Your task to perform on an android device: Open privacy settings Image 0: 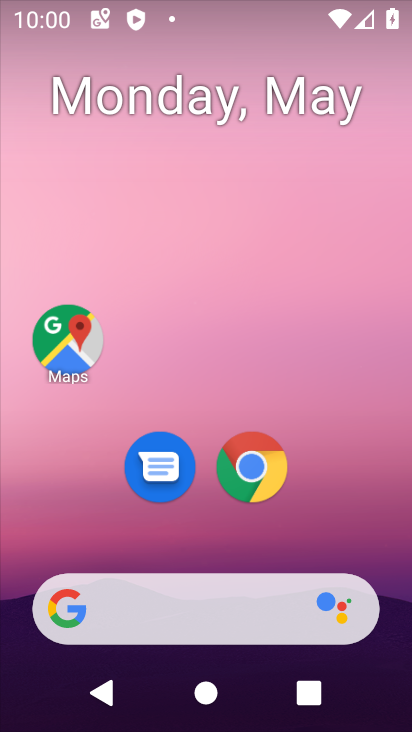
Step 0: drag from (396, 603) to (296, 7)
Your task to perform on an android device: Open privacy settings Image 1: 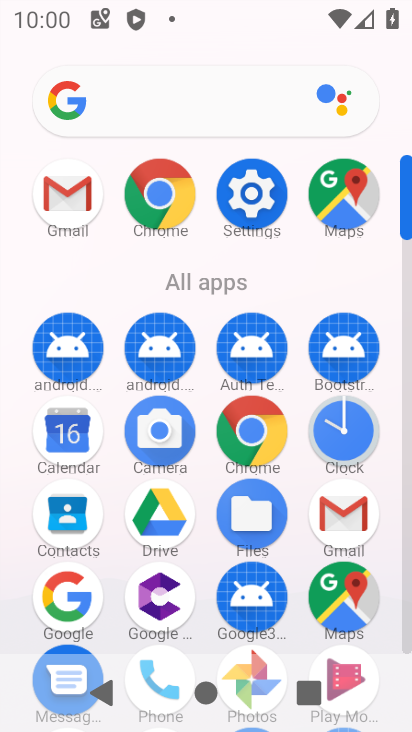
Step 1: click (405, 617)
Your task to perform on an android device: Open privacy settings Image 2: 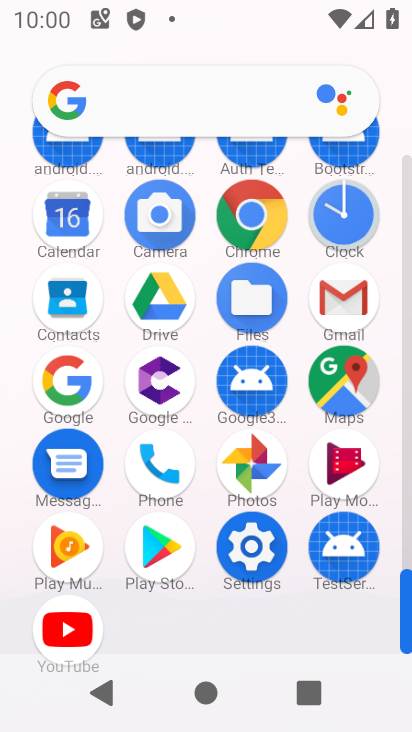
Step 2: click (251, 549)
Your task to perform on an android device: Open privacy settings Image 3: 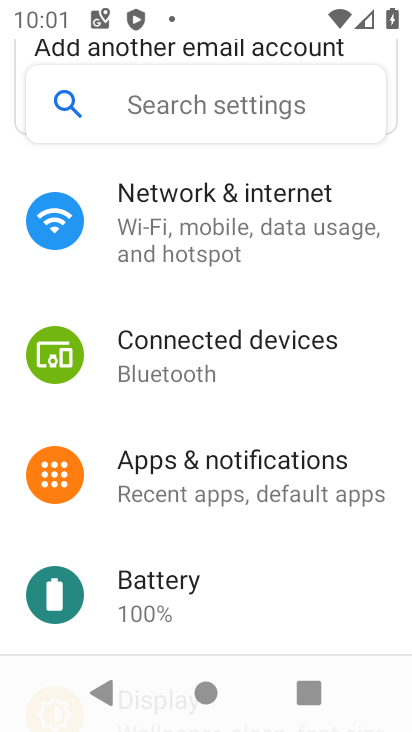
Step 3: drag from (218, 578) to (205, 149)
Your task to perform on an android device: Open privacy settings Image 4: 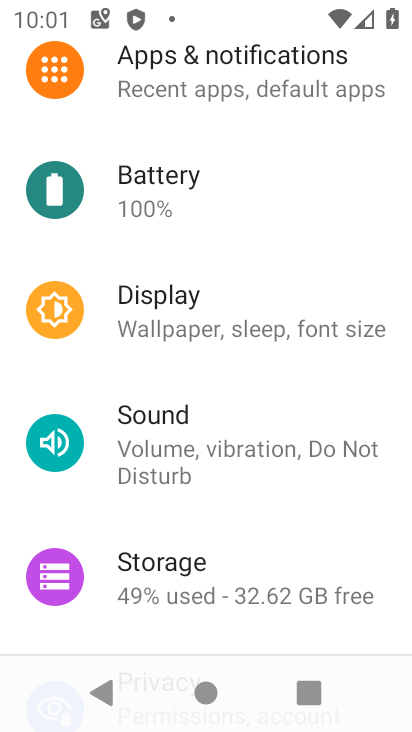
Step 4: drag from (259, 577) to (243, 169)
Your task to perform on an android device: Open privacy settings Image 5: 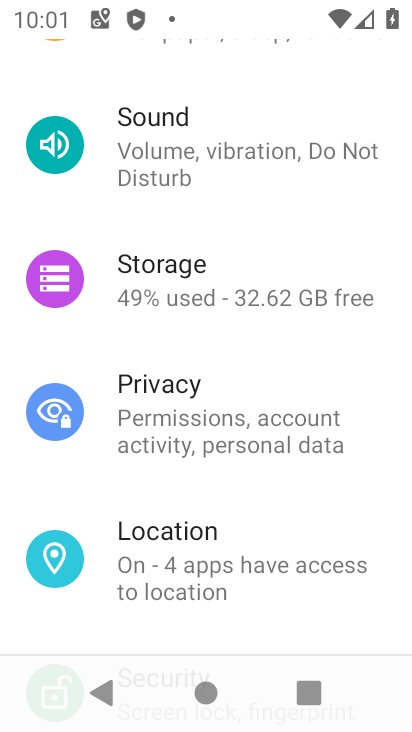
Step 5: click (188, 432)
Your task to perform on an android device: Open privacy settings Image 6: 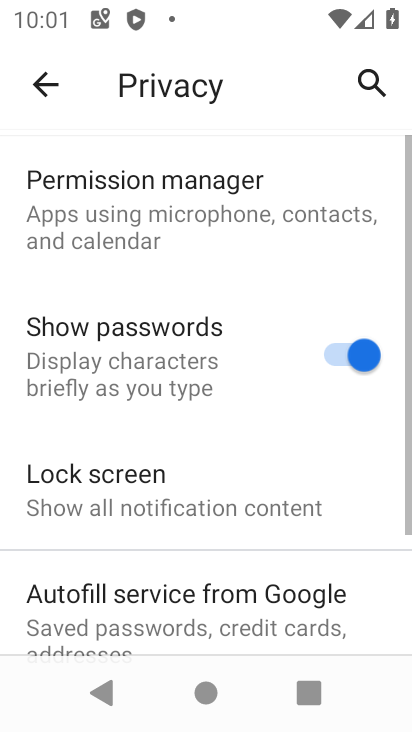
Step 6: drag from (218, 576) to (179, 197)
Your task to perform on an android device: Open privacy settings Image 7: 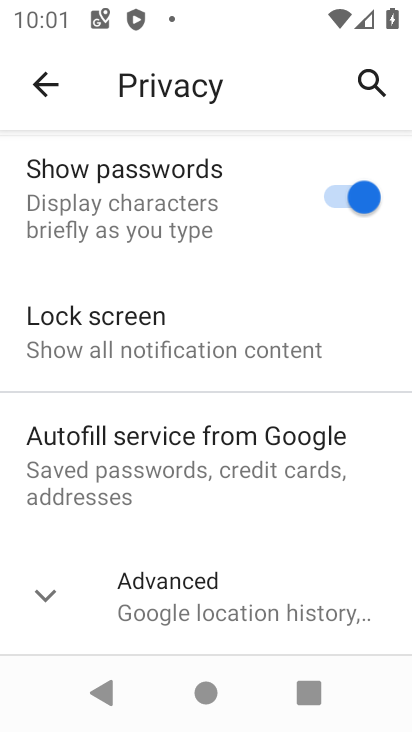
Step 7: click (52, 601)
Your task to perform on an android device: Open privacy settings Image 8: 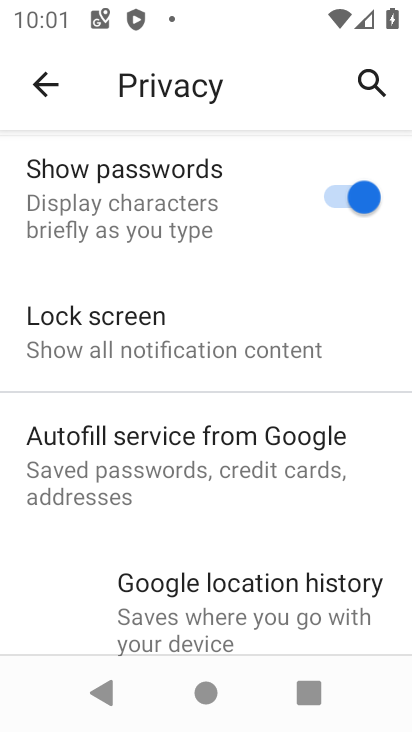
Step 8: task complete